Your task to perform on an android device: turn smart compose on in the gmail app Image 0: 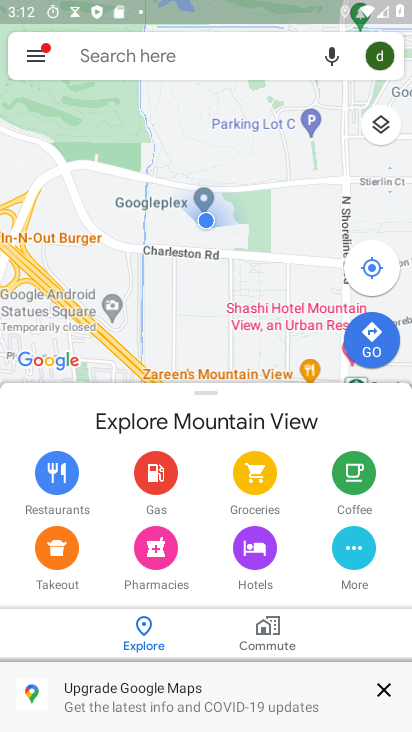
Step 0: press home button
Your task to perform on an android device: turn smart compose on in the gmail app Image 1: 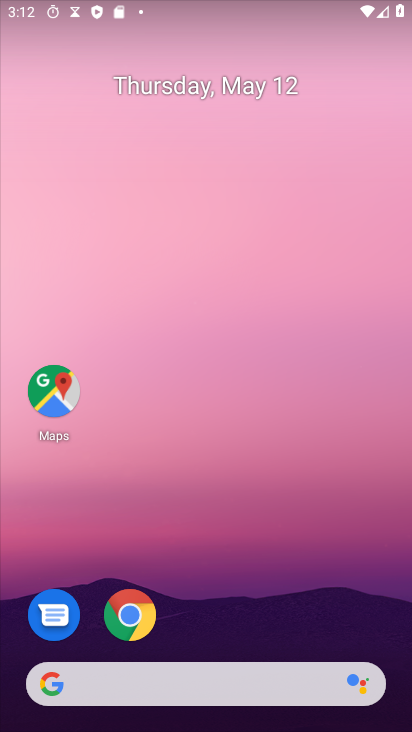
Step 1: drag from (14, 608) to (325, 138)
Your task to perform on an android device: turn smart compose on in the gmail app Image 2: 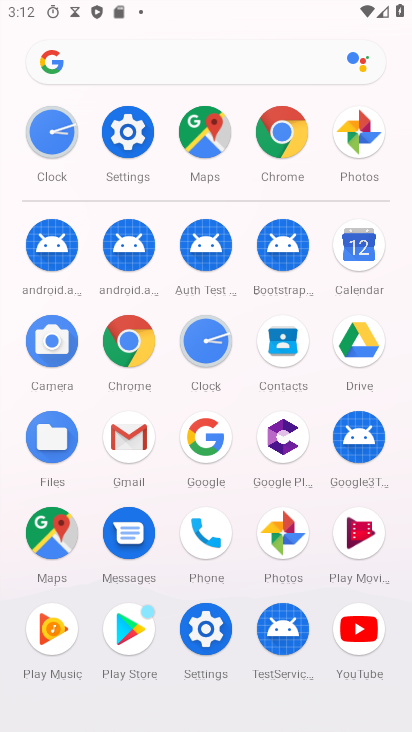
Step 2: click (133, 436)
Your task to perform on an android device: turn smart compose on in the gmail app Image 3: 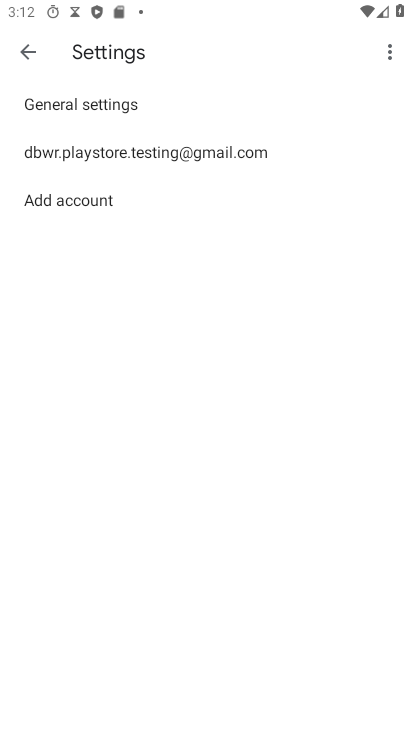
Step 3: click (205, 147)
Your task to perform on an android device: turn smart compose on in the gmail app Image 4: 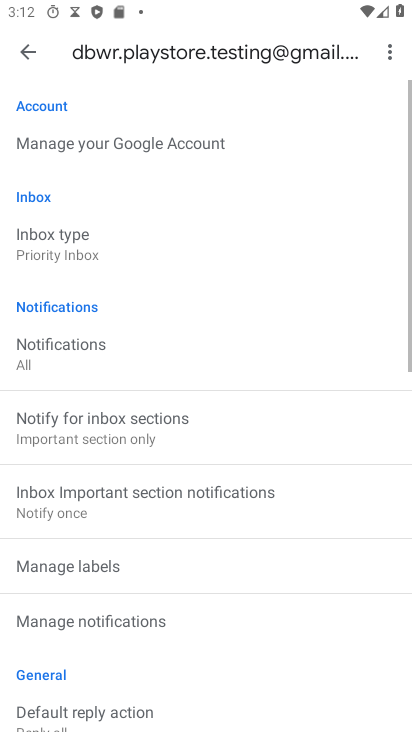
Step 4: drag from (124, 681) to (315, 133)
Your task to perform on an android device: turn smart compose on in the gmail app Image 5: 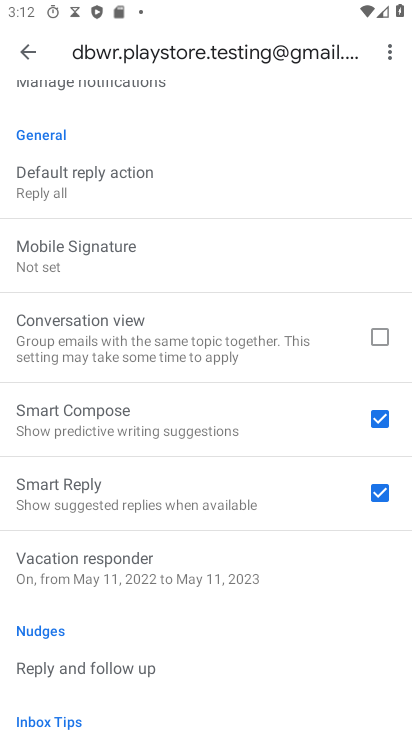
Step 5: click (378, 425)
Your task to perform on an android device: turn smart compose on in the gmail app Image 6: 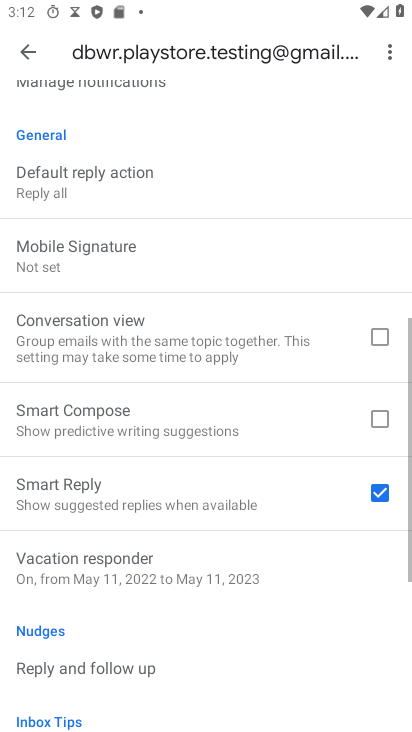
Step 6: task complete